Your task to perform on an android device: Open the map Image 0: 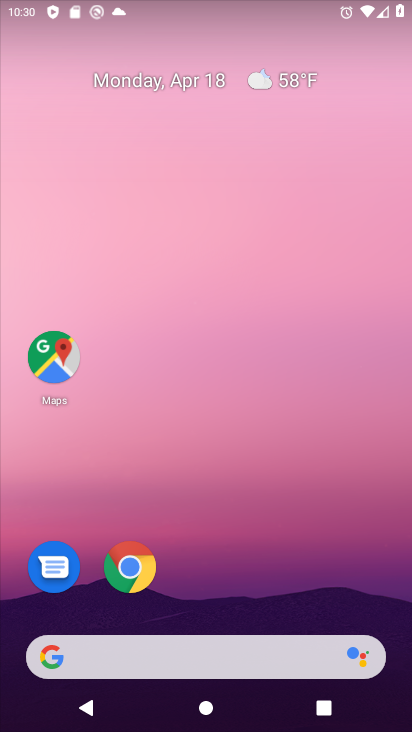
Step 0: drag from (216, 726) to (221, 6)
Your task to perform on an android device: Open the map Image 1: 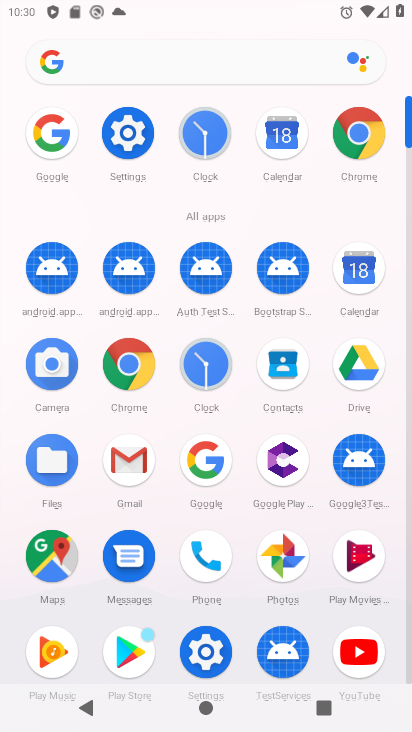
Step 1: click (49, 553)
Your task to perform on an android device: Open the map Image 2: 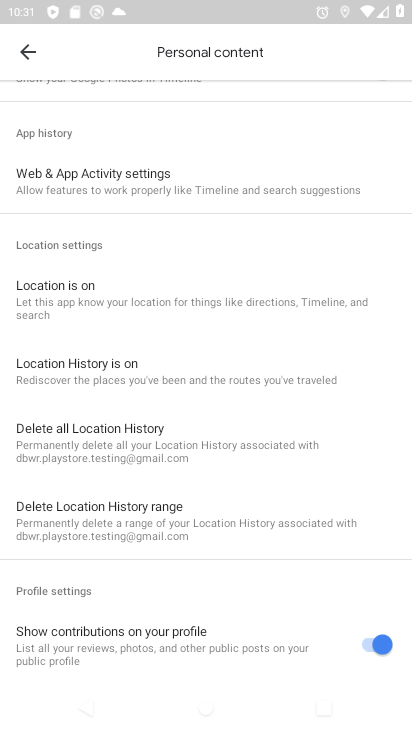
Step 2: click (30, 48)
Your task to perform on an android device: Open the map Image 3: 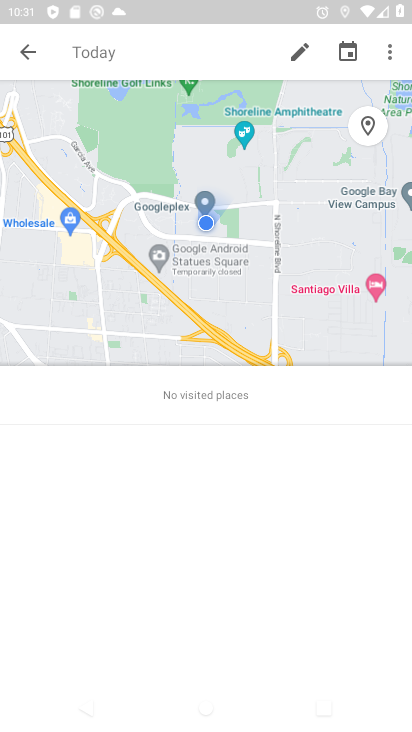
Step 3: task complete